Your task to perform on an android device: remove spam from my inbox in the gmail app Image 0: 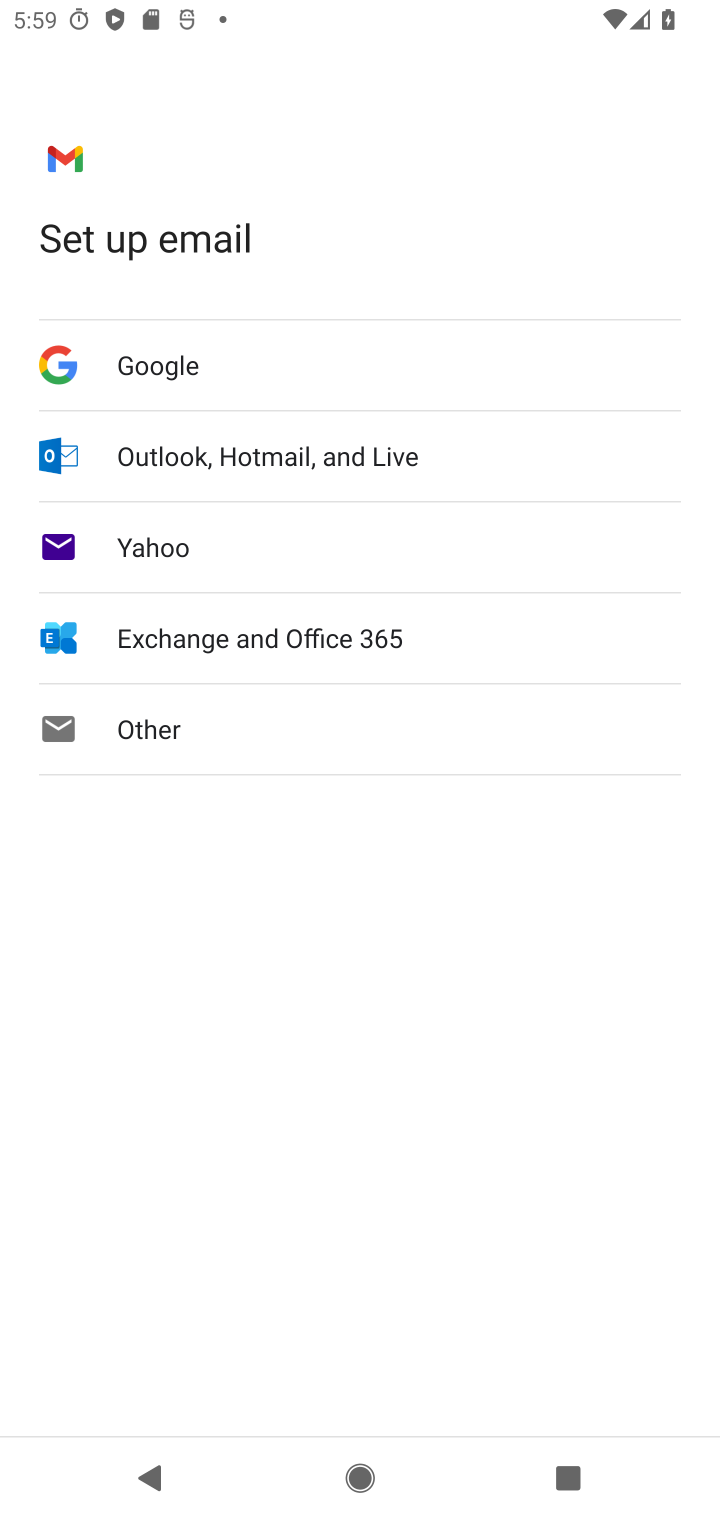
Step 0: press home button
Your task to perform on an android device: remove spam from my inbox in the gmail app Image 1: 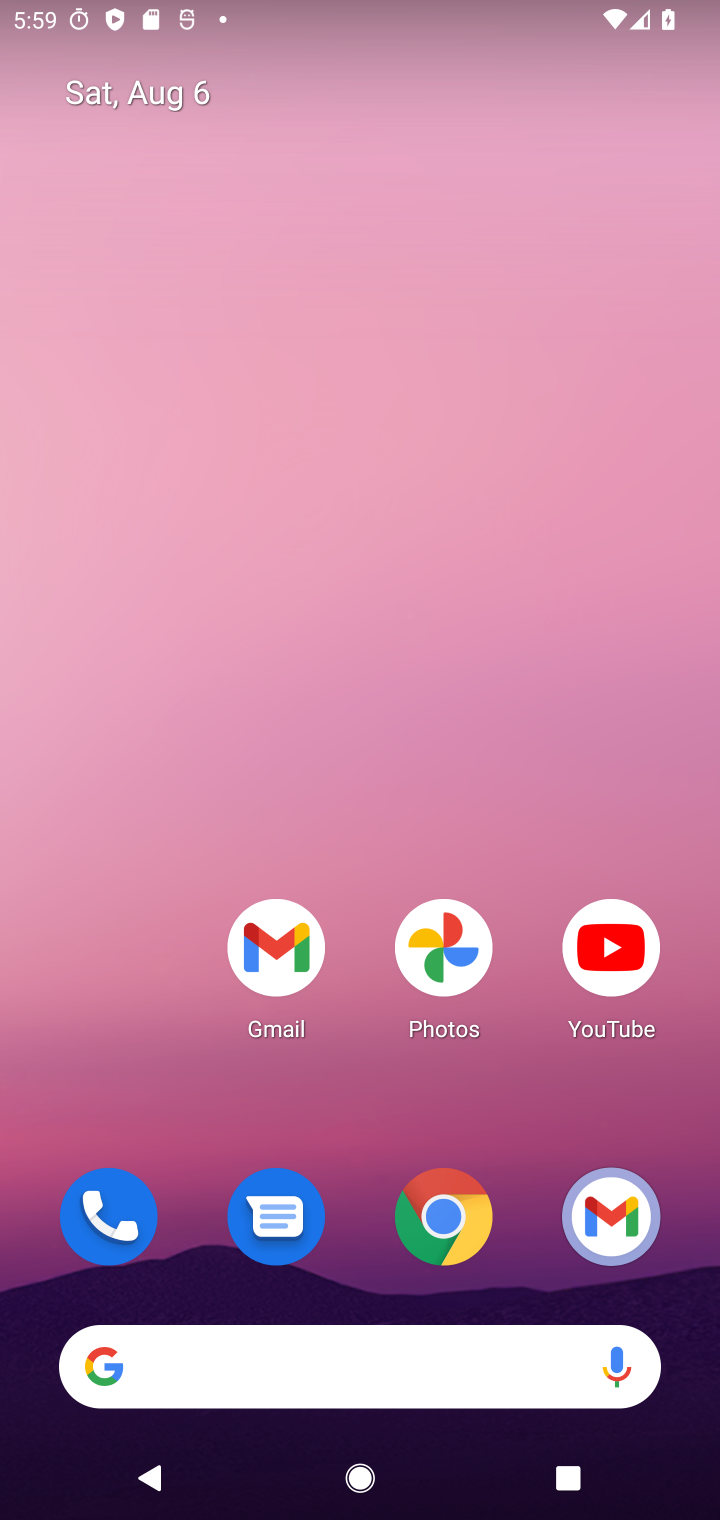
Step 1: drag from (373, 1100) to (319, 4)
Your task to perform on an android device: remove spam from my inbox in the gmail app Image 2: 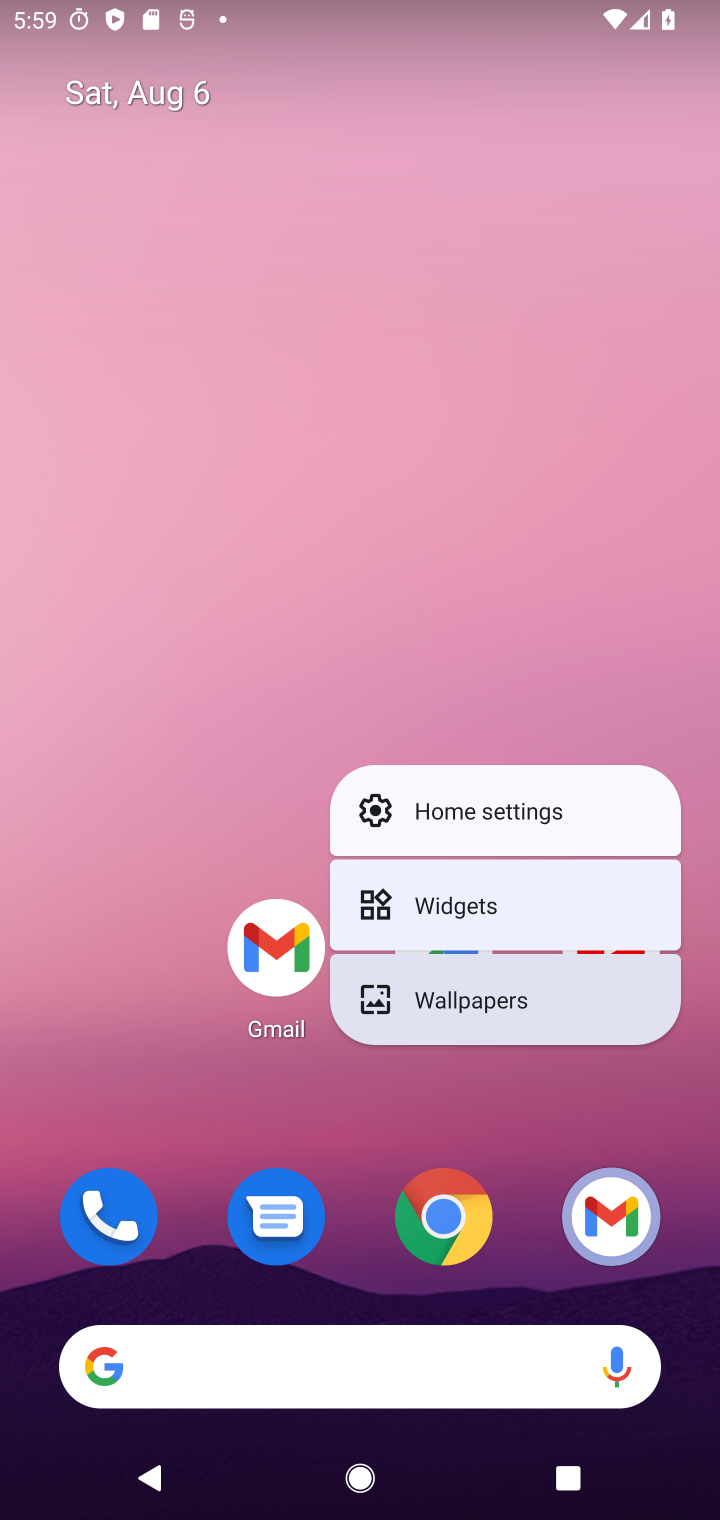
Step 2: click (188, 772)
Your task to perform on an android device: remove spam from my inbox in the gmail app Image 3: 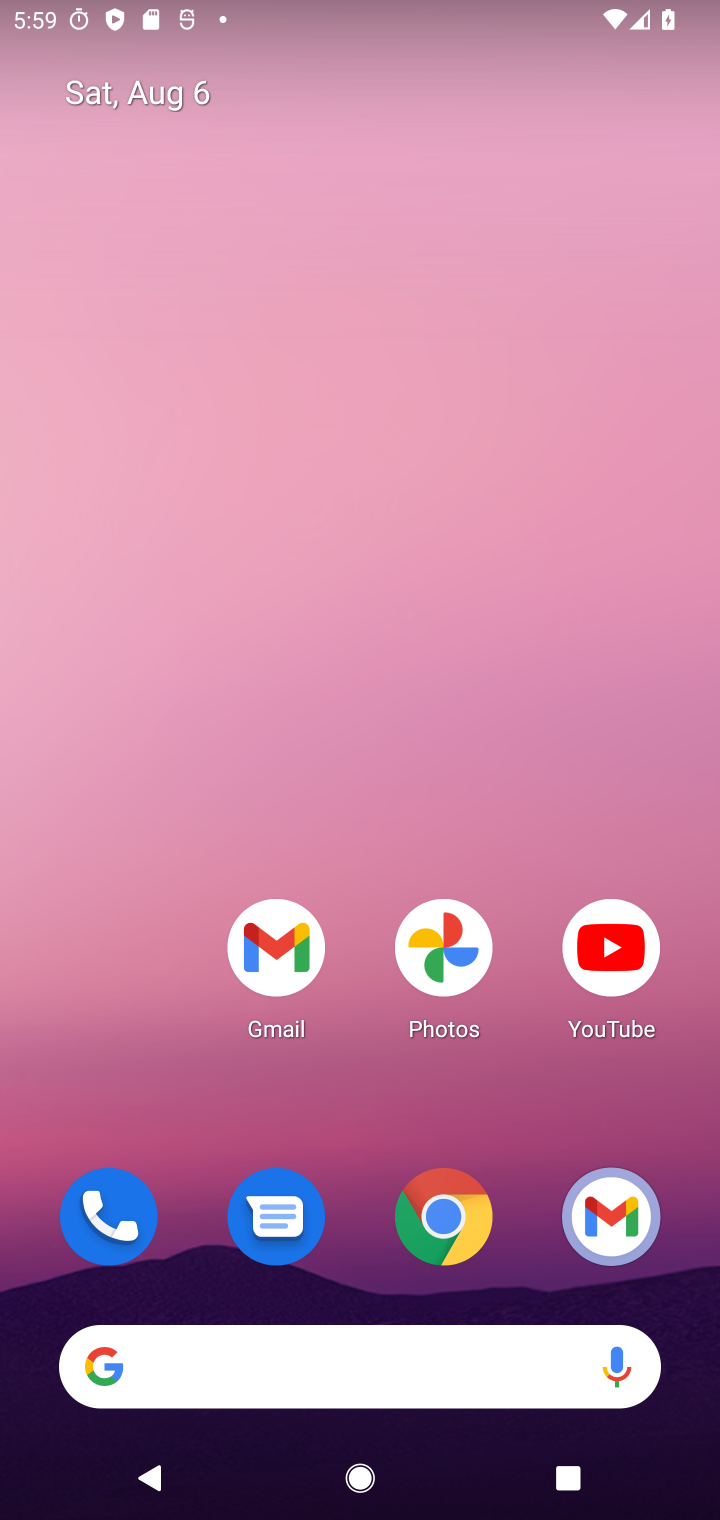
Step 3: drag from (351, 1090) to (400, 195)
Your task to perform on an android device: remove spam from my inbox in the gmail app Image 4: 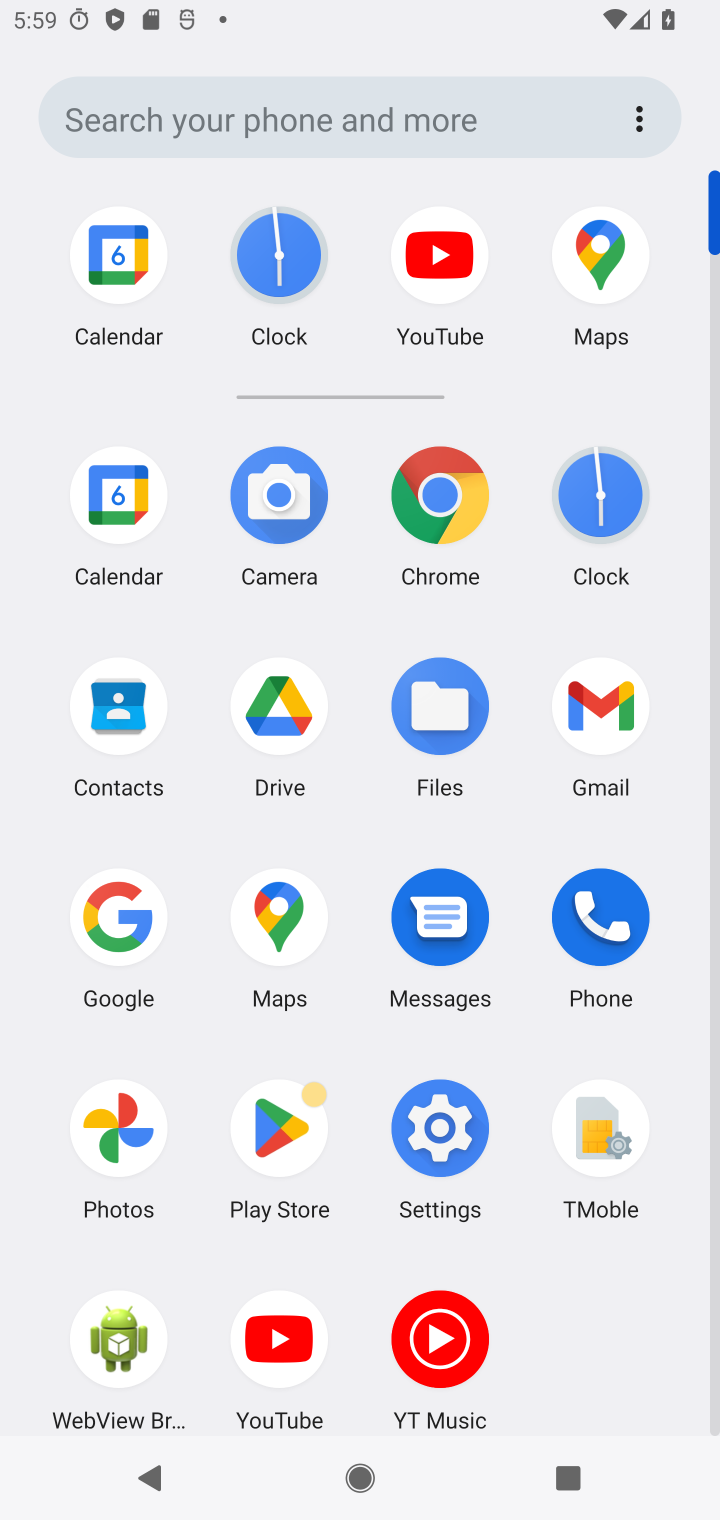
Step 4: click (625, 714)
Your task to perform on an android device: remove spam from my inbox in the gmail app Image 5: 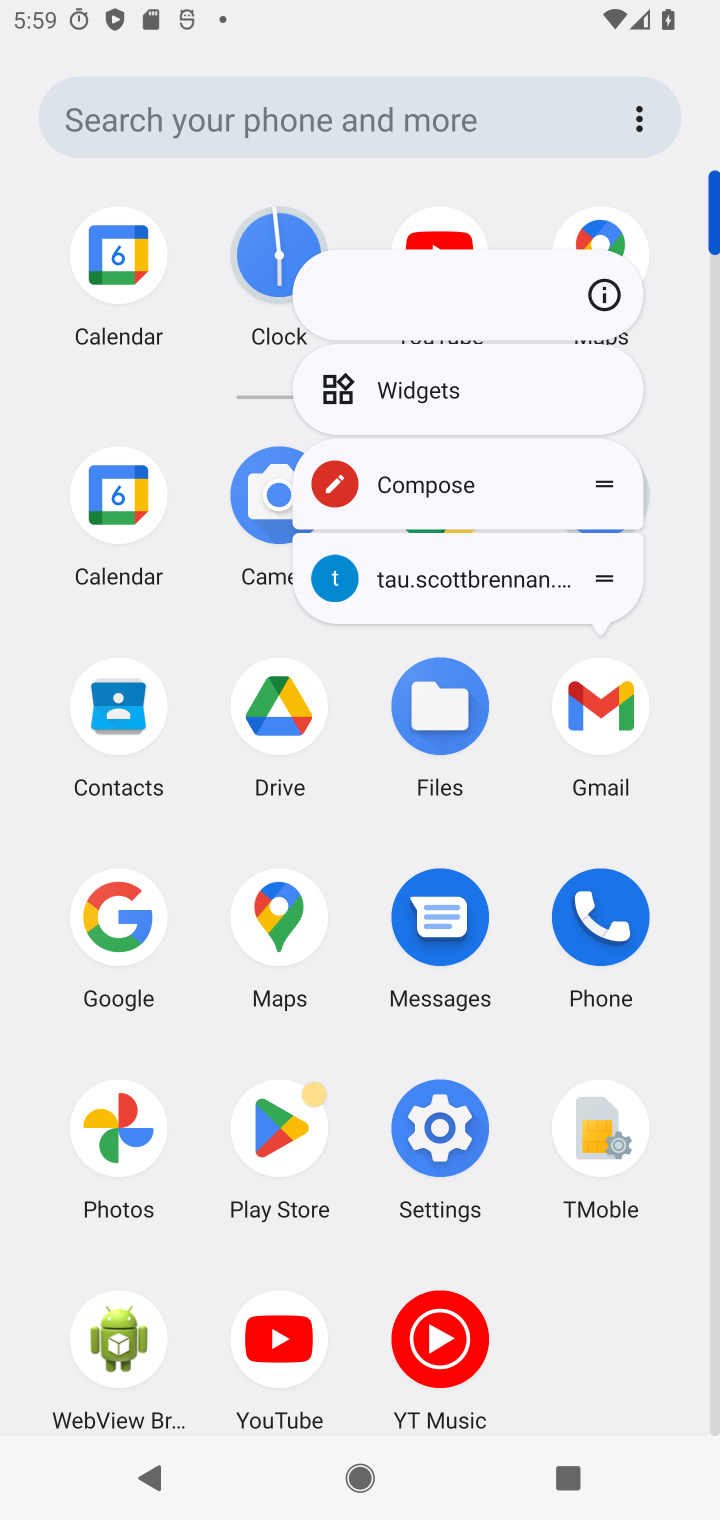
Step 5: click (610, 708)
Your task to perform on an android device: remove spam from my inbox in the gmail app Image 6: 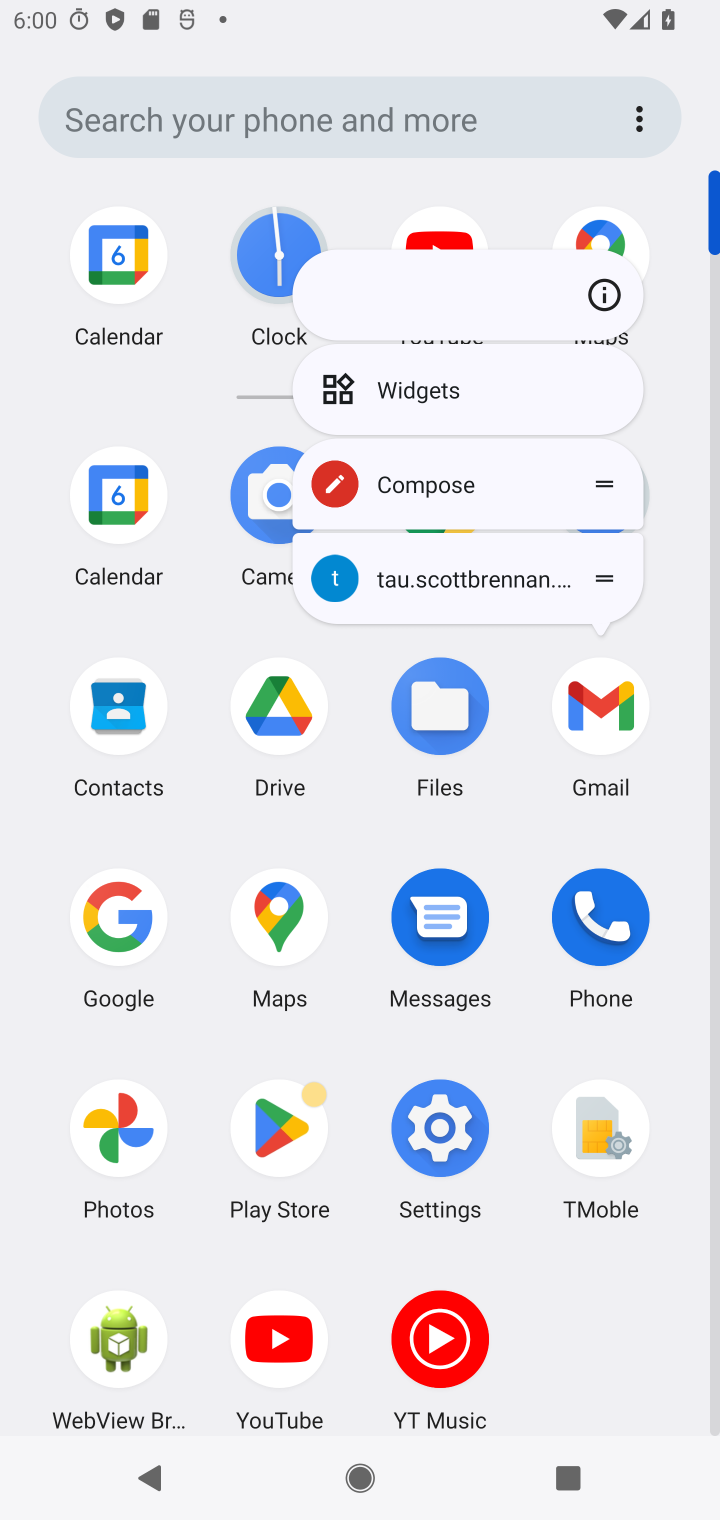
Step 6: click (610, 708)
Your task to perform on an android device: remove spam from my inbox in the gmail app Image 7: 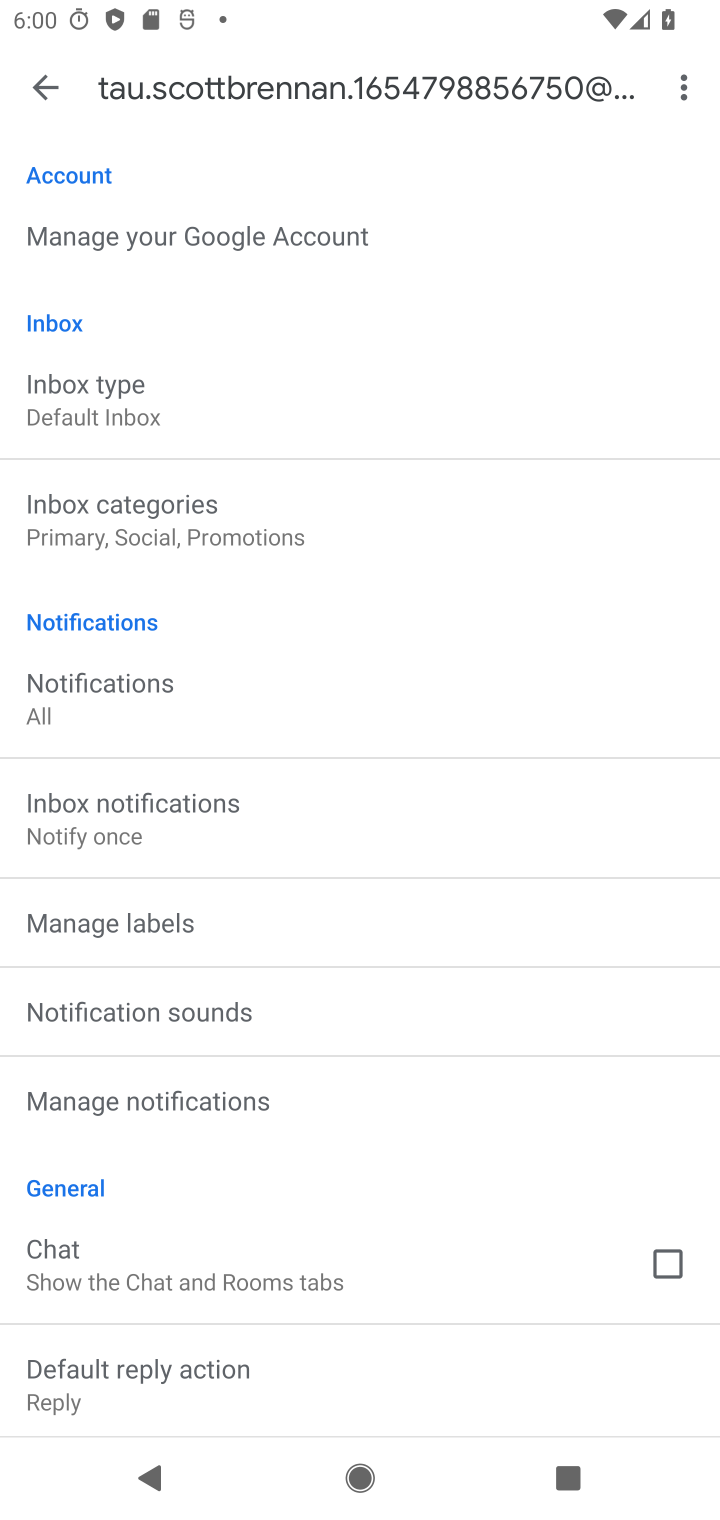
Step 7: click (37, 88)
Your task to perform on an android device: remove spam from my inbox in the gmail app Image 8: 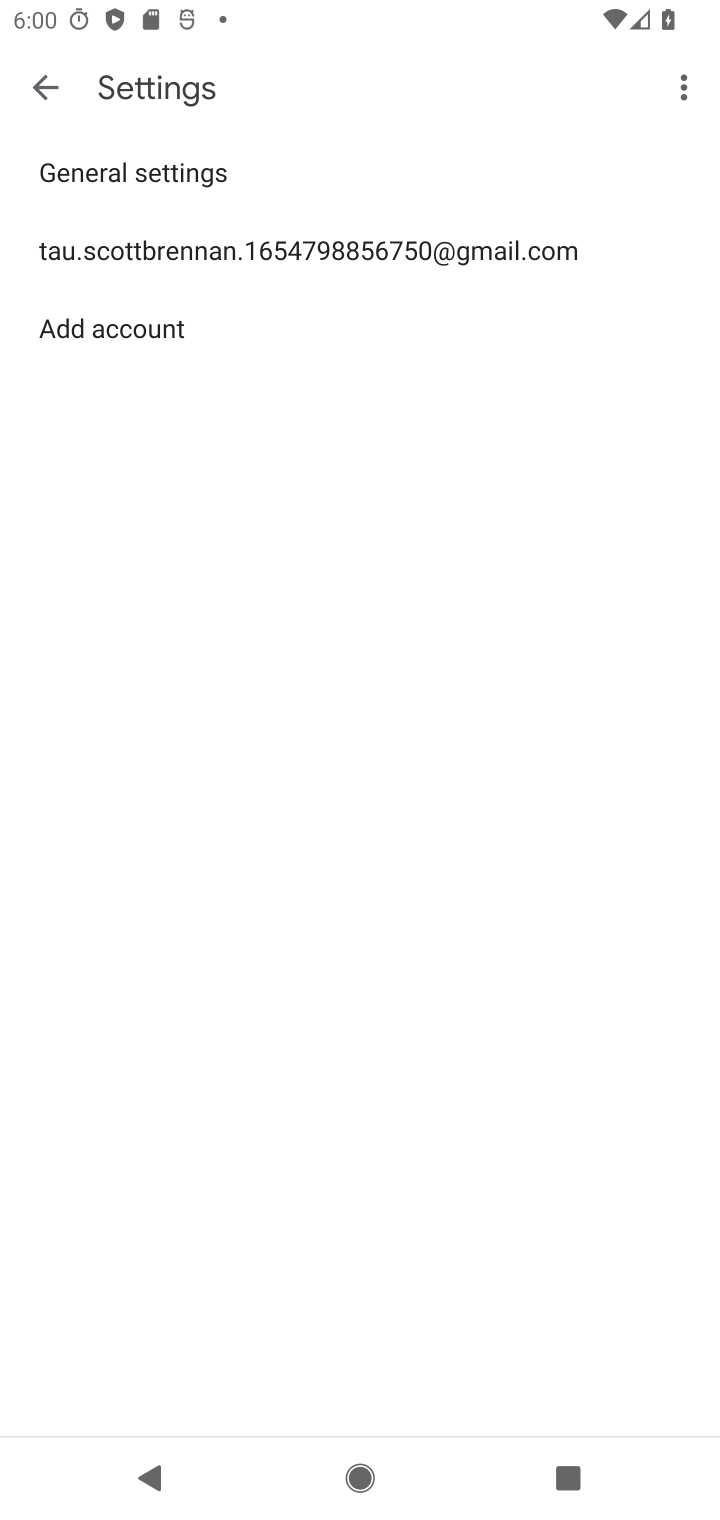
Step 8: task complete